Your task to perform on an android device: Open Chrome and go to settings Image 0: 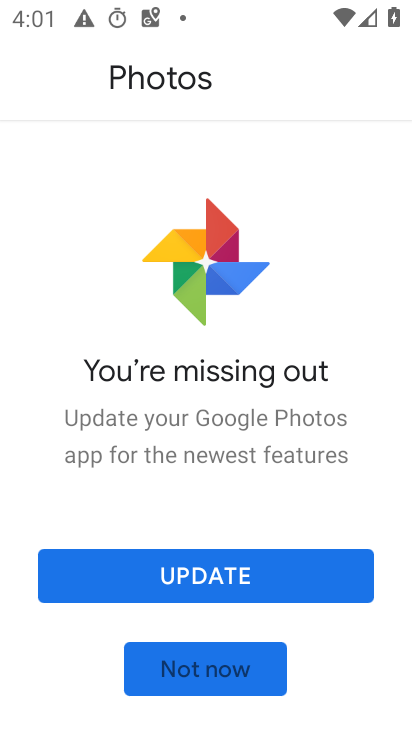
Step 0: drag from (221, 690) to (158, 185)
Your task to perform on an android device: Open Chrome and go to settings Image 1: 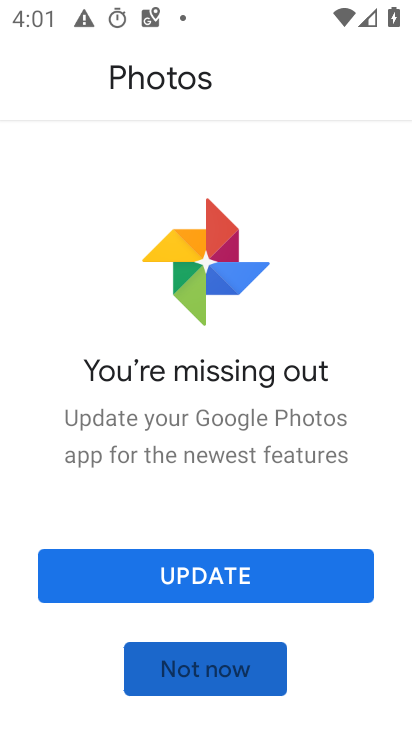
Step 1: drag from (210, 349) to (181, 118)
Your task to perform on an android device: Open Chrome and go to settings Image 2: 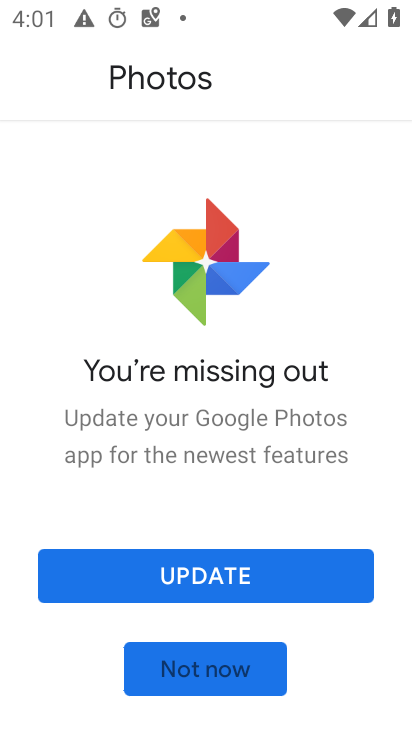
Step 2: drag from (311, 535) to (269, 163)
Your task to perform on an android device: Open Chrome and go to settings Image 3: 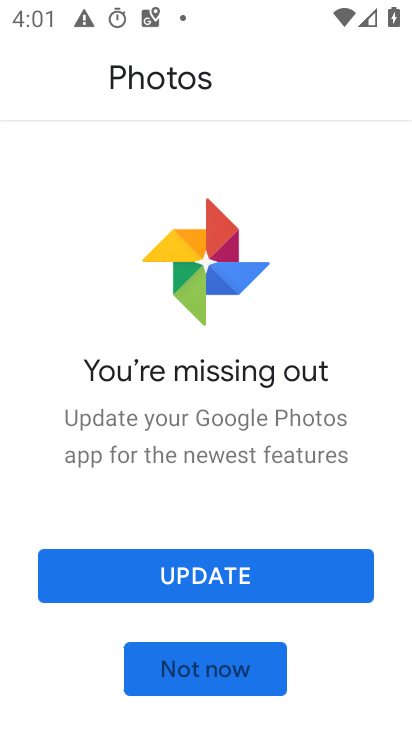
Step 3: drag from (308, 536) to (291, 244)
Your task to perform on an android device: Open Chrome and go to settings Image 4: 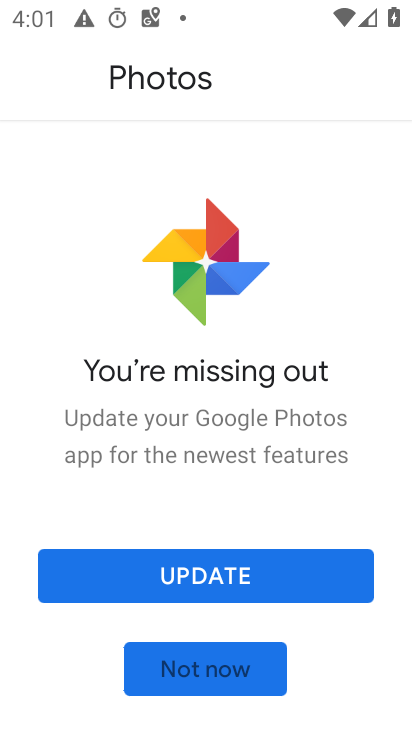
Step 4: drag from (284, 590) to (240, 109)
Your task to perform on an android device: Open Chrome and go to settings Image 5: 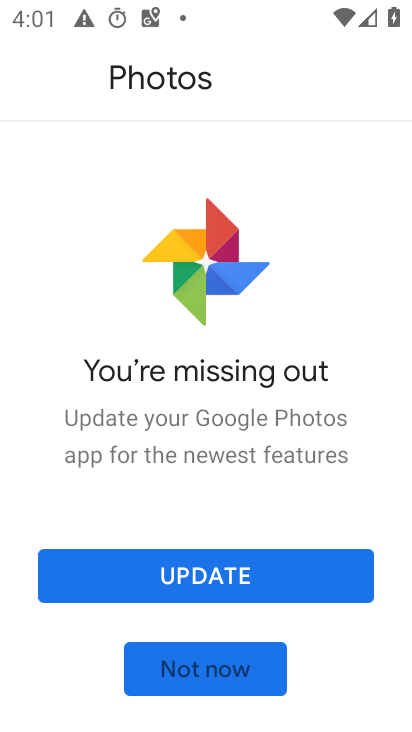
Step 5: drag from (213, 226) to (198, 114)
Your task to perform on an android device: Open Chrome and go to settings Image 6: 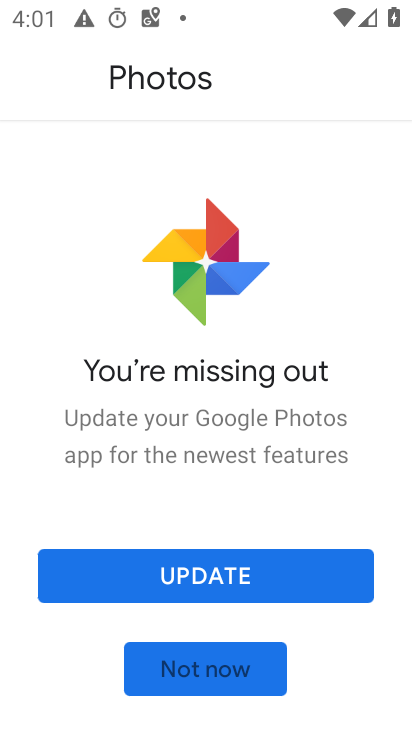
Step 6: drag from (203, 501) to (189, 126)
Your task to perform on an android device: Open Chrome and go to settings Image 7: 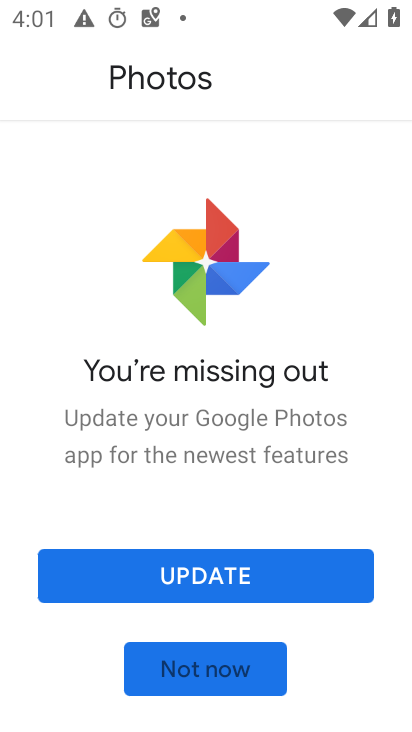
Step 7: drag from (235, 330) to (235, 118)
Your task to perform on an android device: Open Chrome and go to settings Image 8: 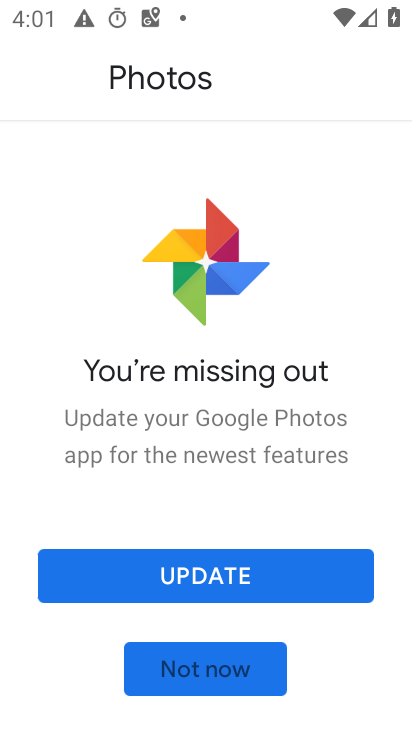
Step 8: drag from (326, 572) to (342, 177)
Your task to perform on an android device: Open Chrome and go to settings Image 9: 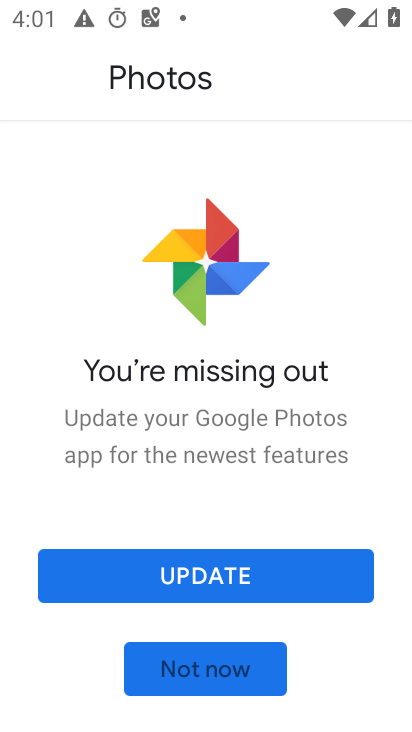
Step 9: click (188, 672)
Your task to perform on an android device: Open Chrome and go to settings Image 10: 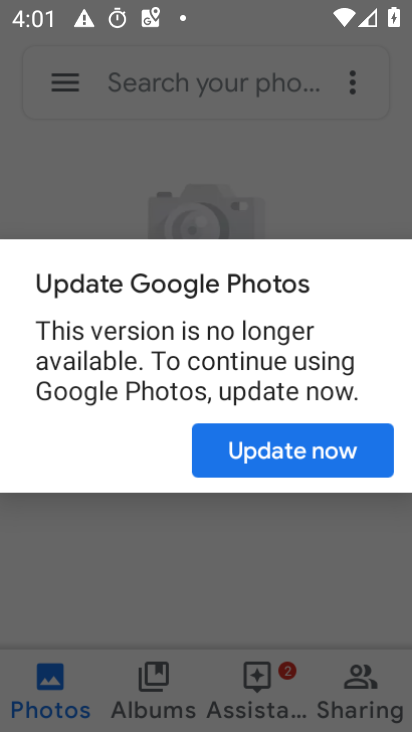
Step 10: press back button
Your task to perform on an android device: Open Chrome and go to settings Image 11: 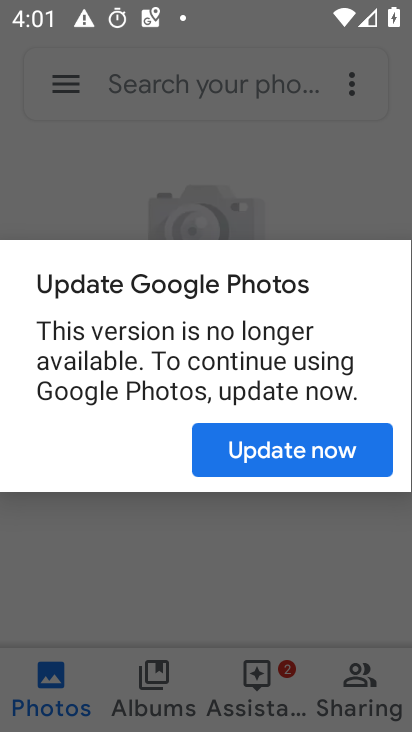
Step 11: press back button
Your task to perform on an android device: Open Chrome and go to settings Image 12: 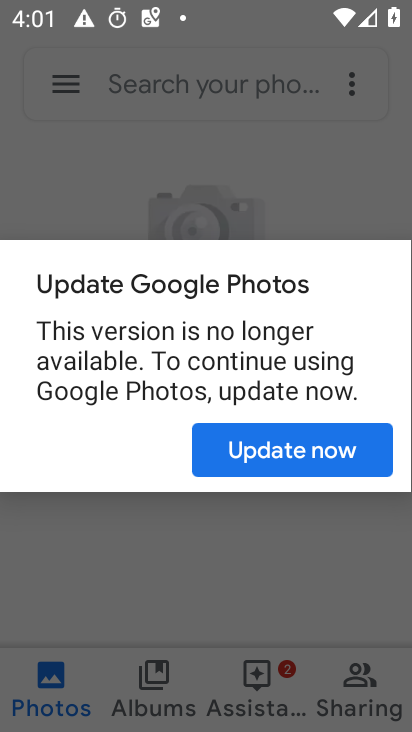
Step 12: press home button
Your task to perform on an android device: Open Chrome and go to settings Image 13: 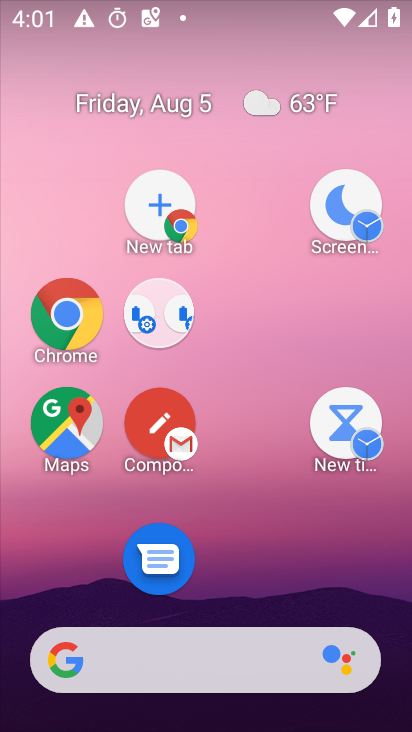
Step 13: drag from (256, 591) to (231, 105)
Your task to perform on an android device: Open Chrome and go to settings Image 14: 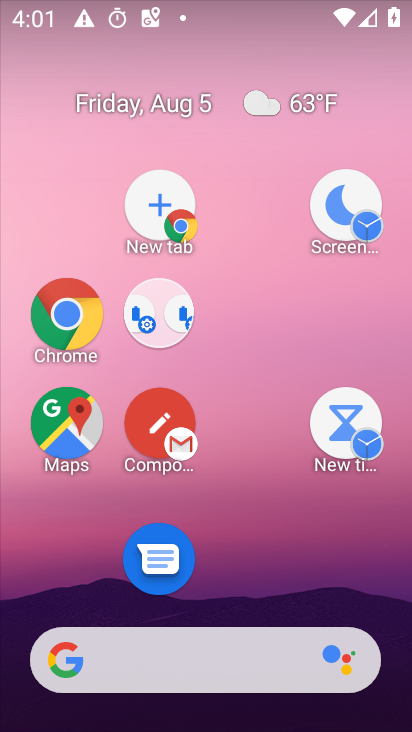
Step 14: drag from (244, 563) to (231, 43)
Your task to perform on an android device: Open Chrome and go to settings Image 15: 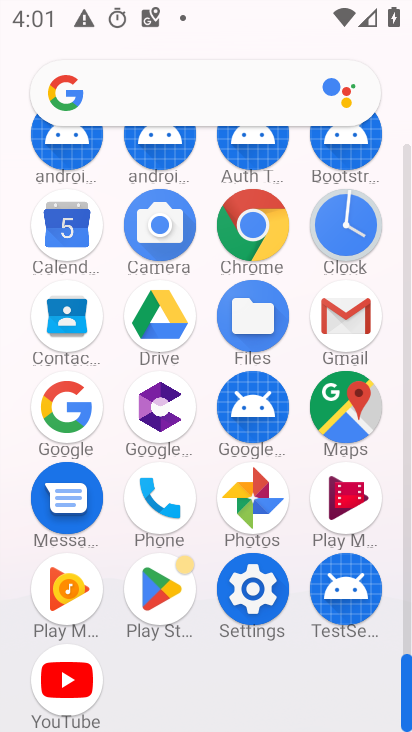
Step 15: click (237, 239)
Your task to perform on an android device: Open Chrome and go to settings Image 16: 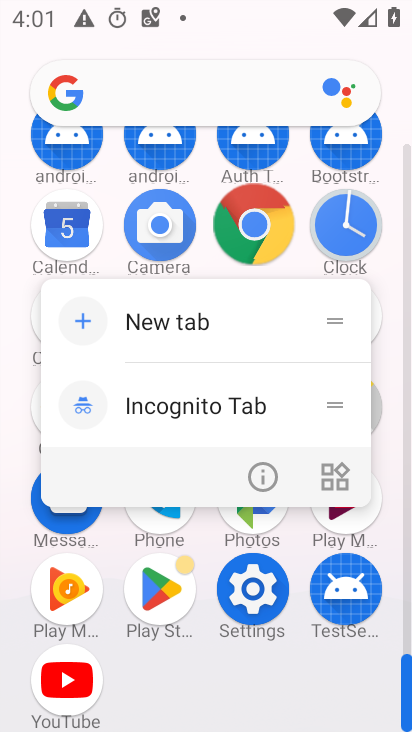
Step 16: click (253, 234)
Your task to perform on an android device: Open Chrome and go to settings Image 17: 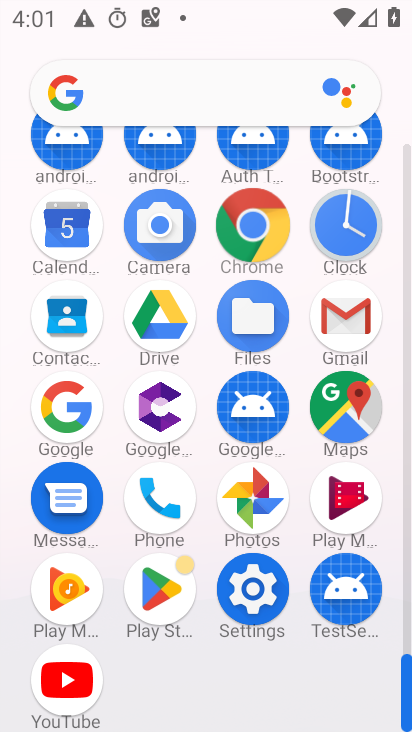
Step 17: click (254, 233)
Your task to perform on an android device: Open Chrome and go to settings Image 18: 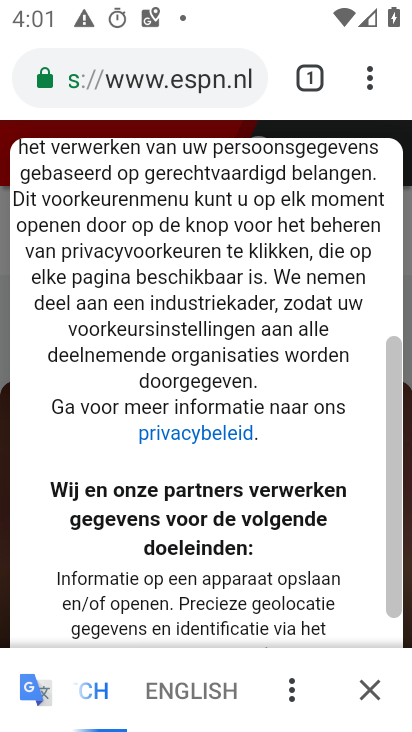
Step 18: click (370, 74)
Your task to perform on an android device: Open Chrome and go to settings Image 19: 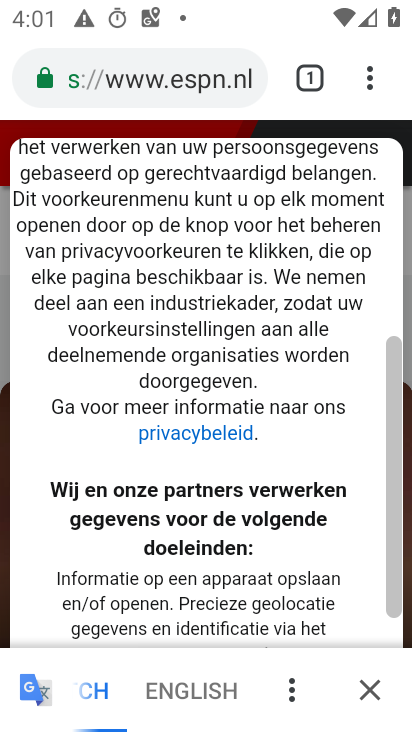
Step 19: click (370, 80)
Your task to perform on an android device: Open Chrome and go to settings Image 20: 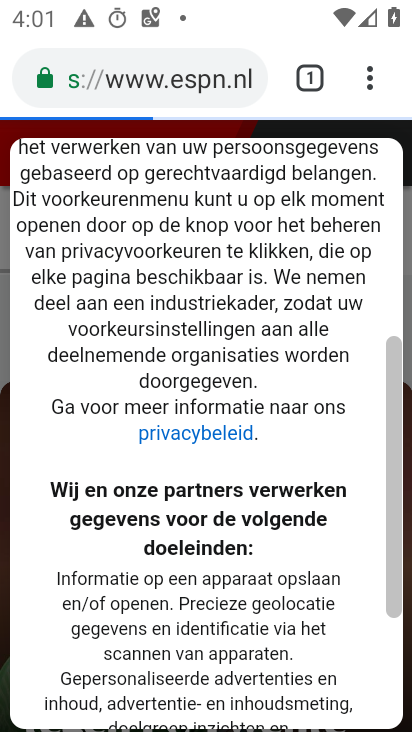
Step 20: drag from (371, 76) to (84, 616)
Your task to perform on an android device: Open Chrome and go to settings Image 21: 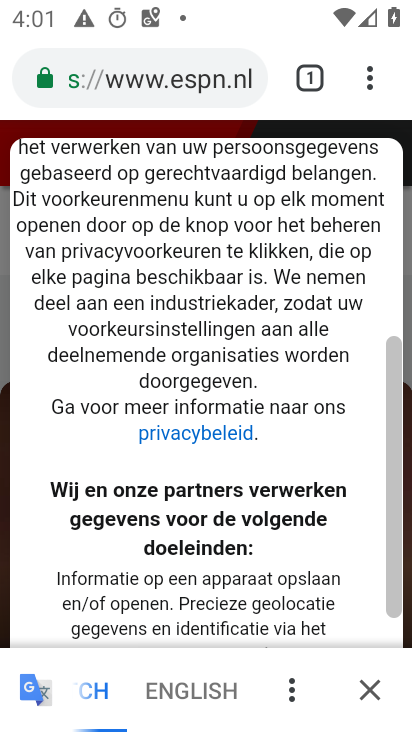
Step 21: click (85, 621)
Your task to perform on an android device: Open Chrome and go to settings Image 22: 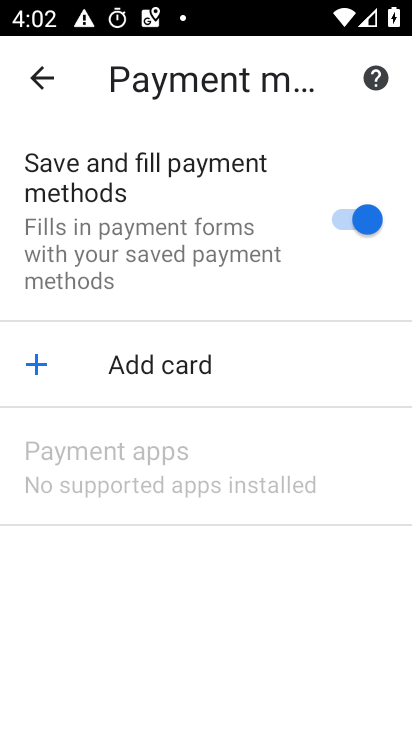
Step 22: click (50, 72)
Your task to perform on an android device: Open Chrome and go to settings Image 23: 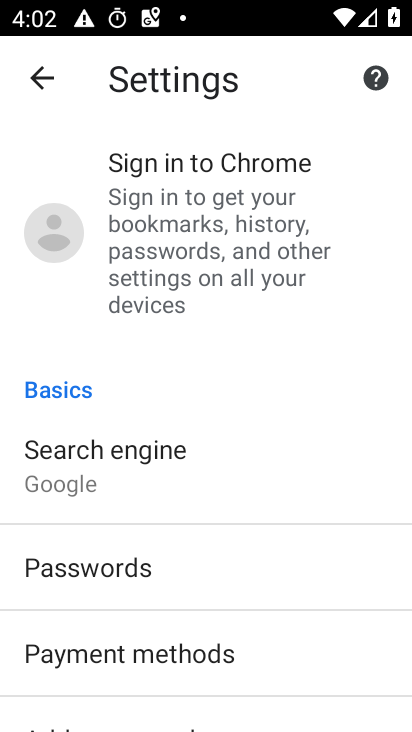
Step 23: task complete